Your task to perform on an android device: turn on translation in the chrome app Image 0: 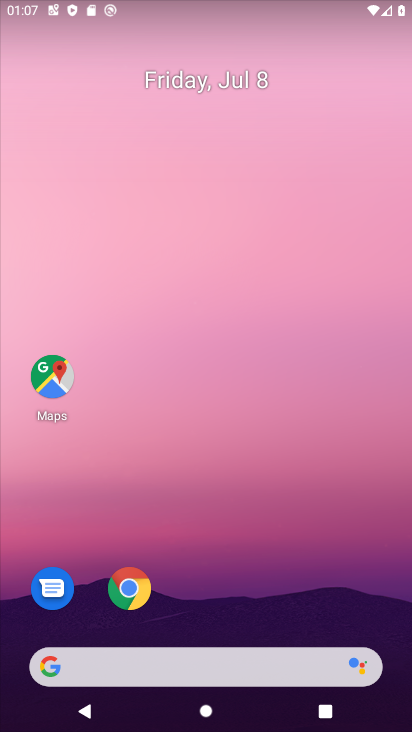
Step 0: drag from (193, 473) to (193, 140)
Your task to perform on an android device: turn on translation in the chrome app Image 1: 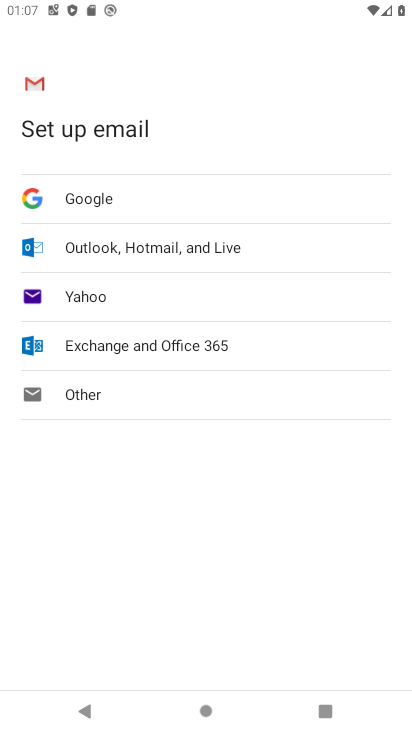
Step 1: press home button
Your task to perform on an android device: turn on translation in the chrome app Image 2: 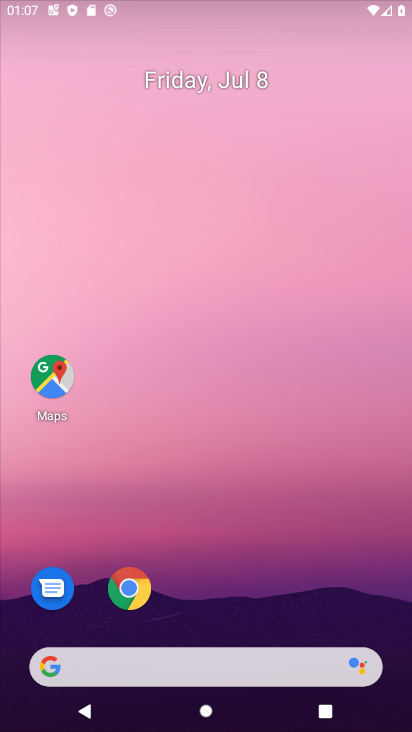
Step 2: drag from (180, 607) to (211, 4)
Your task to perform on an android device: turn on translation in the chrome app Image 3: 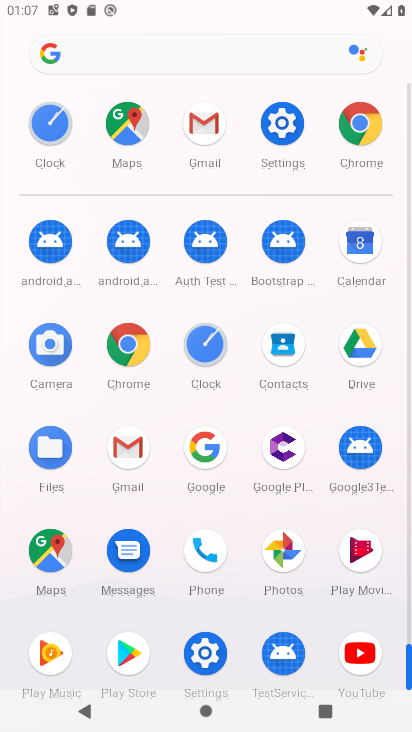
Step 3: click (115, 345)
Your task to perform on an android device: turn on translation in the chrome app Image 4: 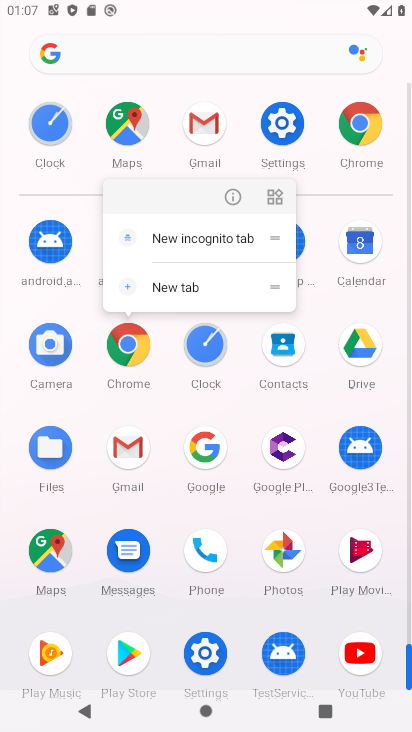
Step 4: click (232, 200)
Your task to perform on an android device: turn on translation in the chrome app Image 5: 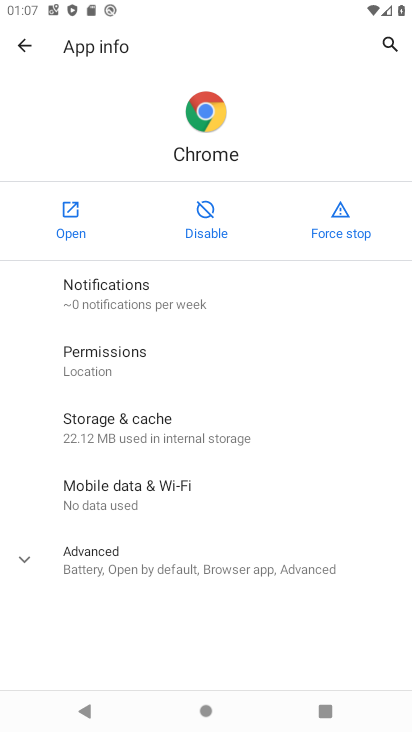
Step 5: click (69, 215)
Your task to perform on an android device: turn on translation in the chrome app Image 6: 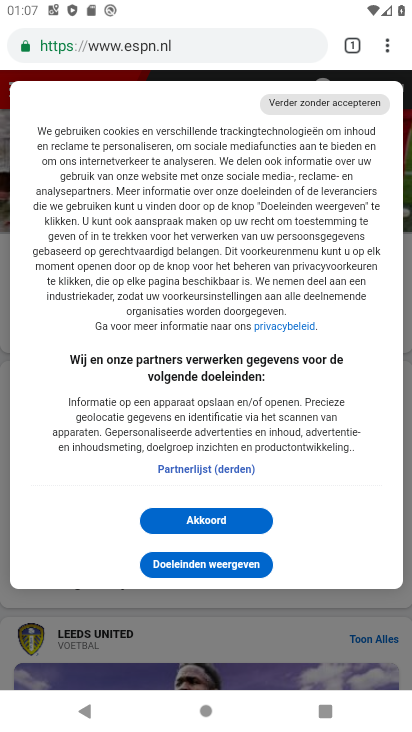
Step 6: drag from (303, 532) to (309, 280)
Your task to perform on an android device: turn on translation in the chrome app Image 7: 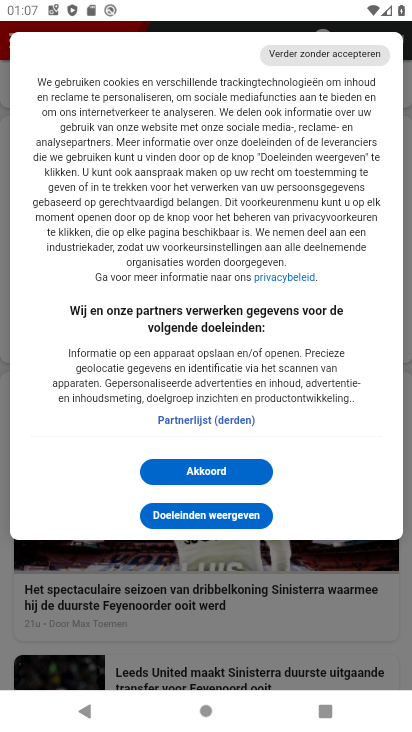
Step 7: drag from (317, 212) to (323, 623)
Your task to perform on an android device: turn on translation in the chrome app Image 8: 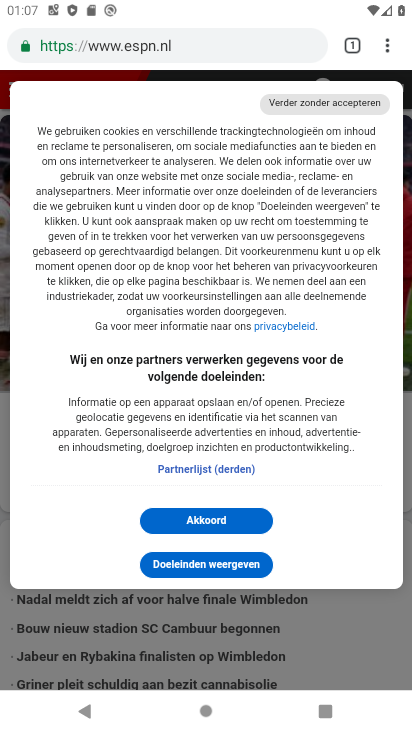
Step 8: click (385, 46)
Your task to perform on an android device: turn on translation in the chrome app Image 9: 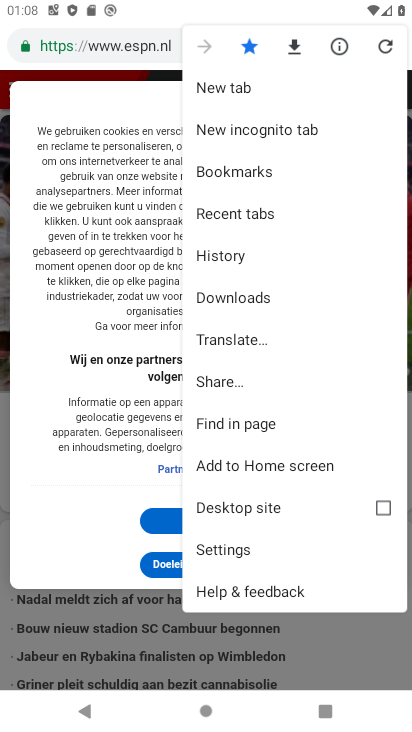
Step 9: click (244, 546)
Your task to perform on an android device: turn on translation in the chrome app Image 10: 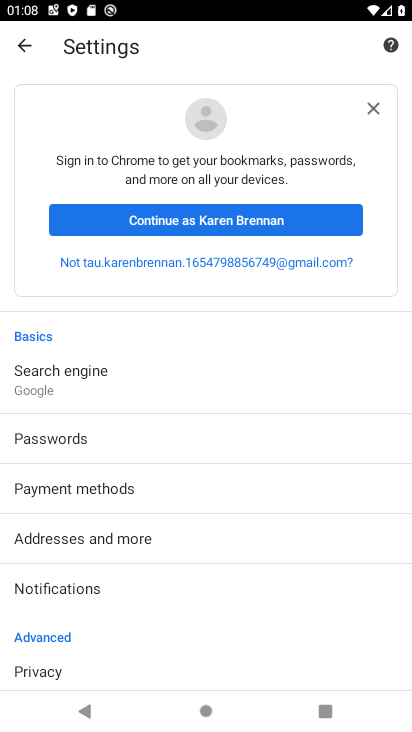
Step 10: drag from (115, 601) to (131, 186)
Your task to perform on an android device: turn on translation in the chrome app Image 11: 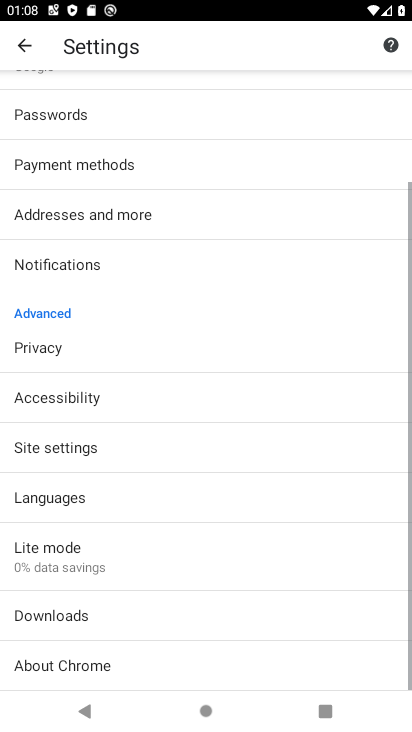
Step 11: drag from (117, 608) to (91, 288)
Your task to perform on an android device: turn on translation in the chrome app Image 12: 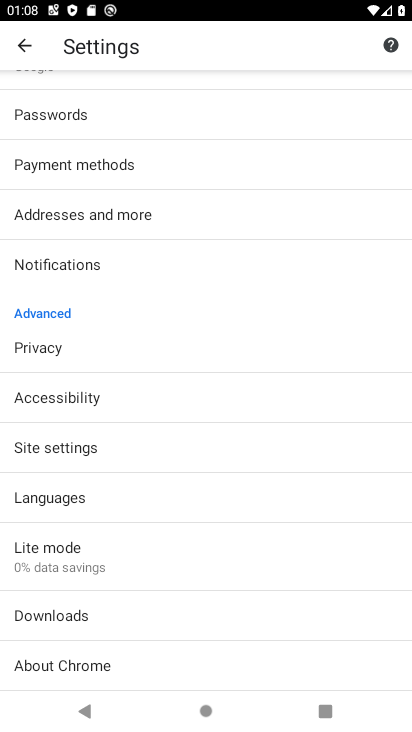
Step 12: click (91, 496)
Your task to perform on an android device: turn on translation in the chrome app Image 13: 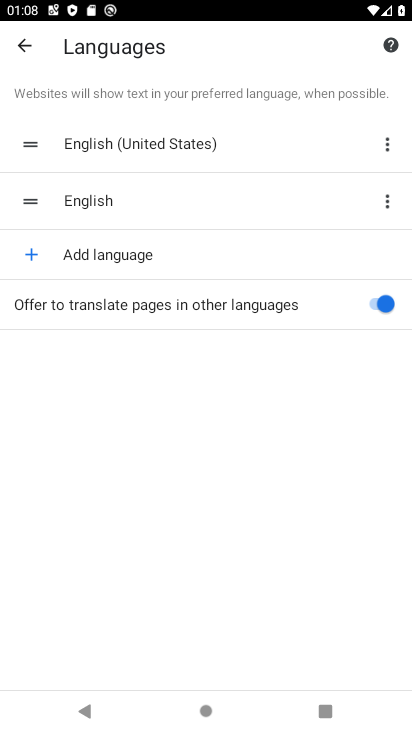
Step 13: task complete